Your task to perform on an android device: Open CNN.com Image 0: 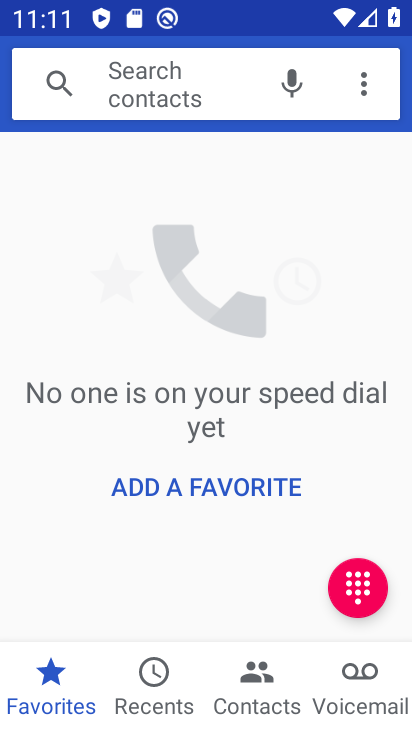
Step 0: press home button
Your task to perform on an android device: Open CNN.com Image 1: 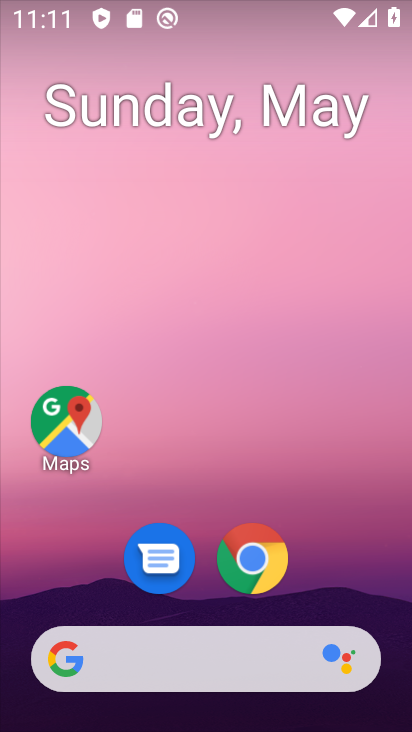
Step 1: drag from (355, 560) to (382, 106)
Your task to perform on an android device: Open CNN.com Image 2: 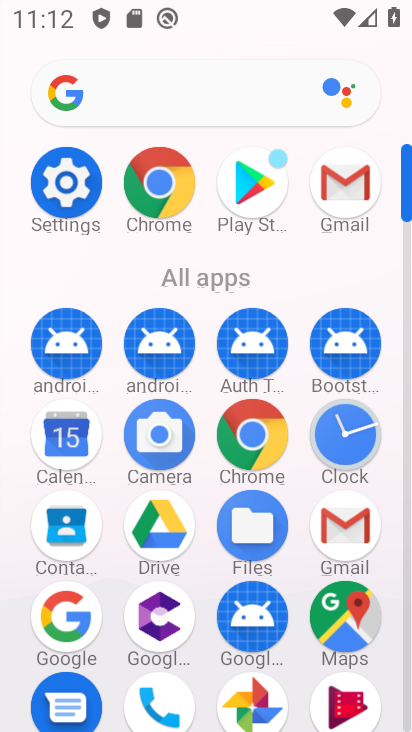
Step 2: click (266, 433)
Your task to perform on an android device: Open CNN.com Image 3: 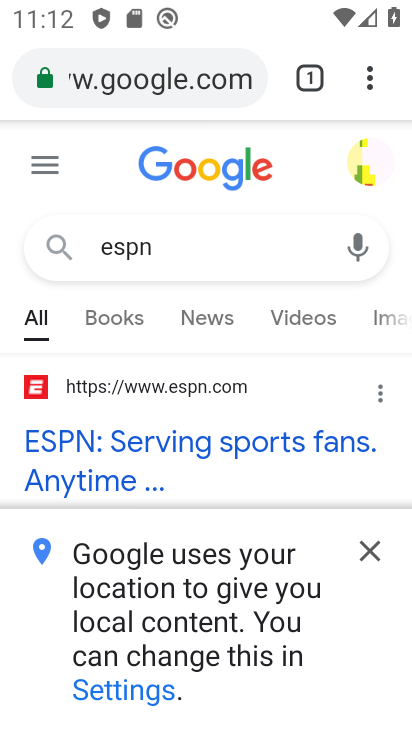
Step 3: click (176, 87)
Your task to perform on an android device: Open CNN.com Image 4: 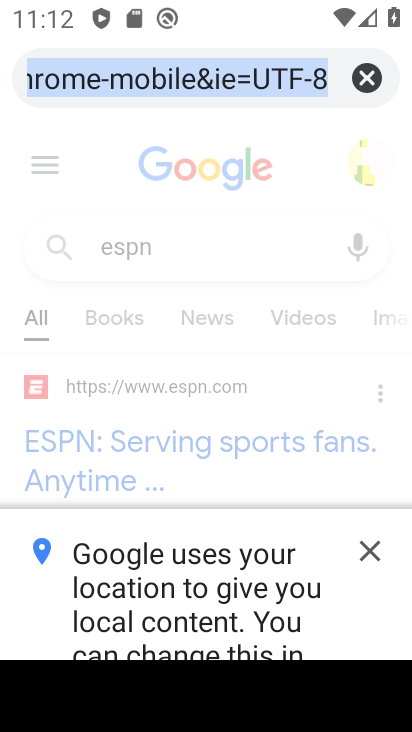
Step 4: click (365, 80)
Your task to perform on an android device: Open CNN.com Image 5: 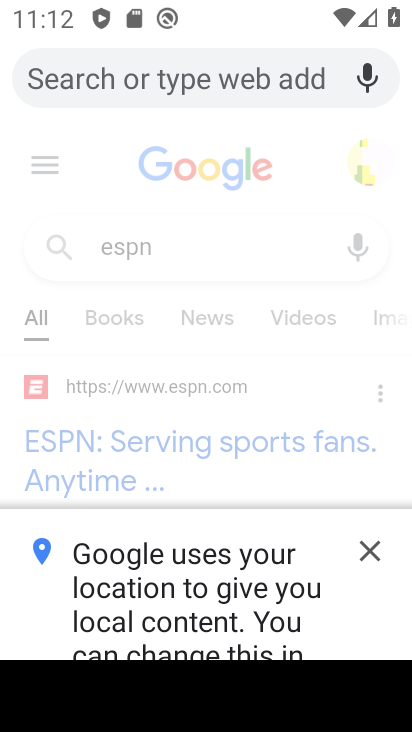
Step 5: type "cnn.com"
Your task to perform on an android device: Open CNN.com Image 6: 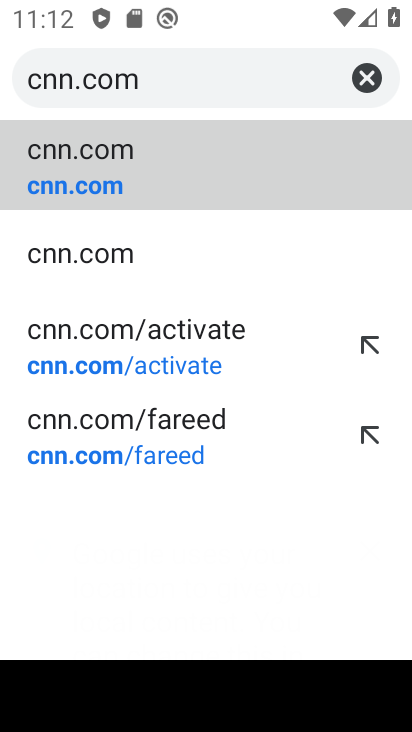
Step 6: click (85, 172)
Your task to perform on an android device: Open CNN.com Image 7: 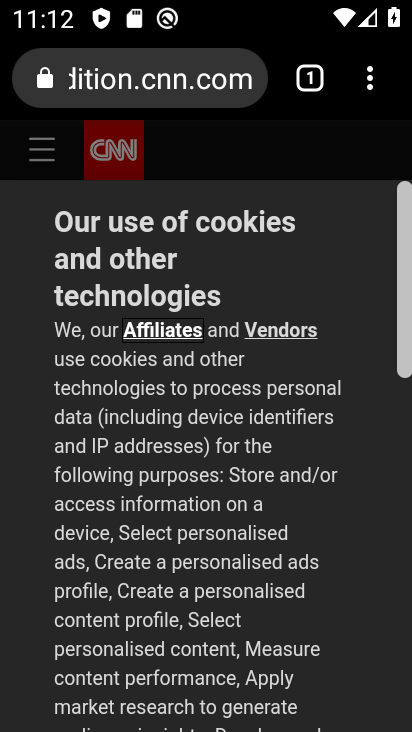
Step 7: task complete